Your task to perform on an android device: Go to Yahoo.com Image 0: 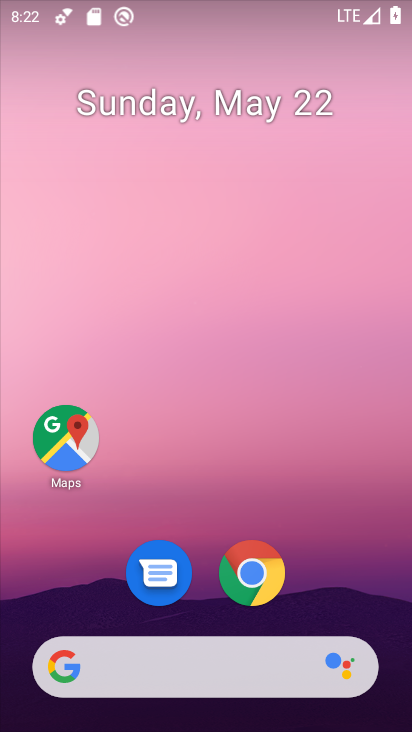
Step 0: drag from (208, 590) to (222, 224)
Your task to perform on an android device: Go to Yahoo.com Image 1: 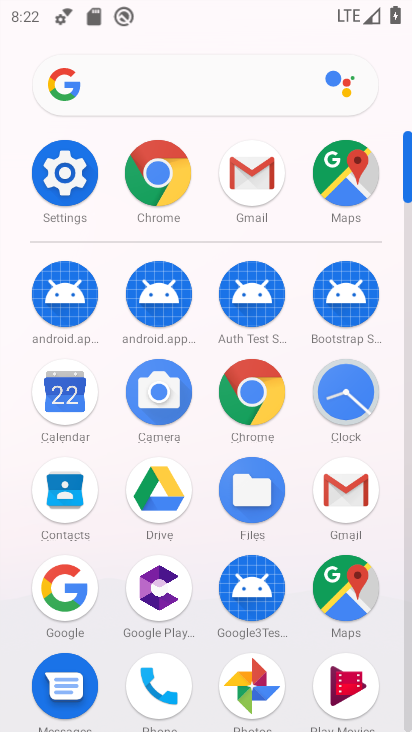
Step 1: click (200, 93)
Your task to perform on an android device: Go to Yahoo.com Image 2: 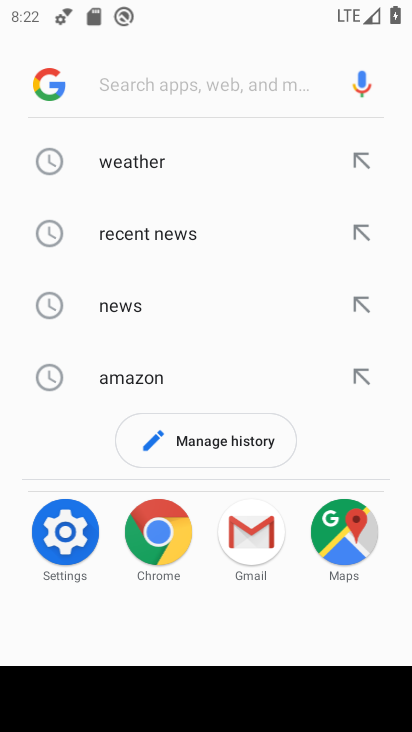
Step 2: type "yahoo"
Your task to perform on an android device: Go to Yahoo.com Image 3: 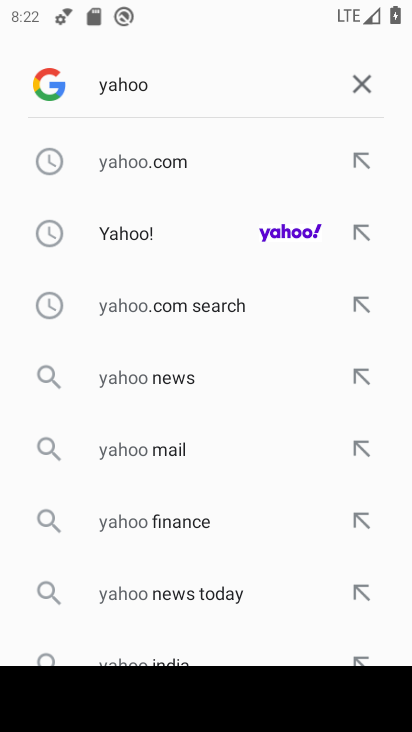
Step 3: click (146, 237)
Your task to perform on an android device: Go to Yahoo.com Image 4: 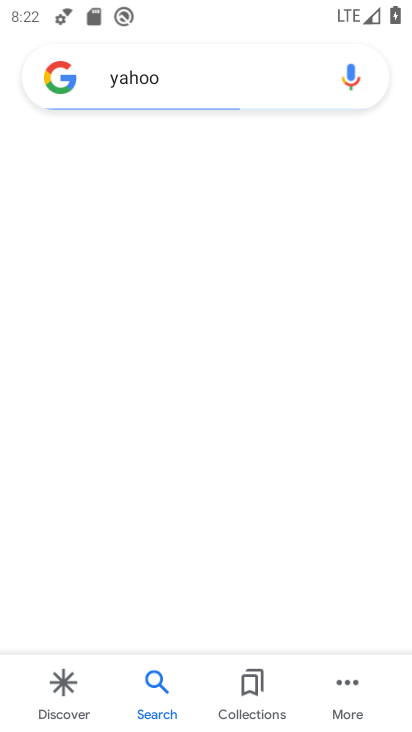
Step 4: task complete